Your task to perform on an android device: Open battery settings Image 0: 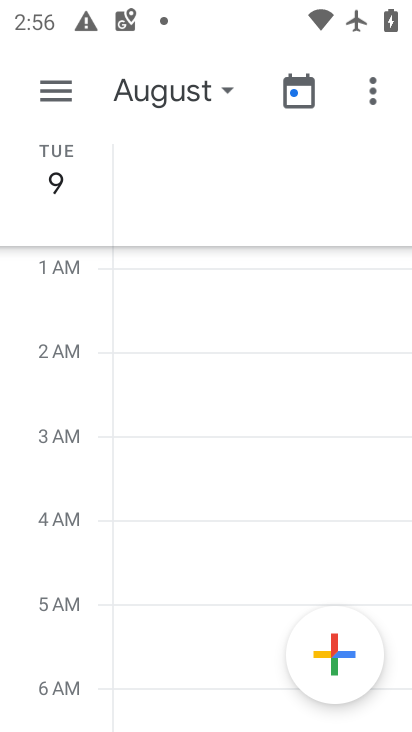
Step 0: press home button
Your task to perform on an android device: Open battery settings Image 1: 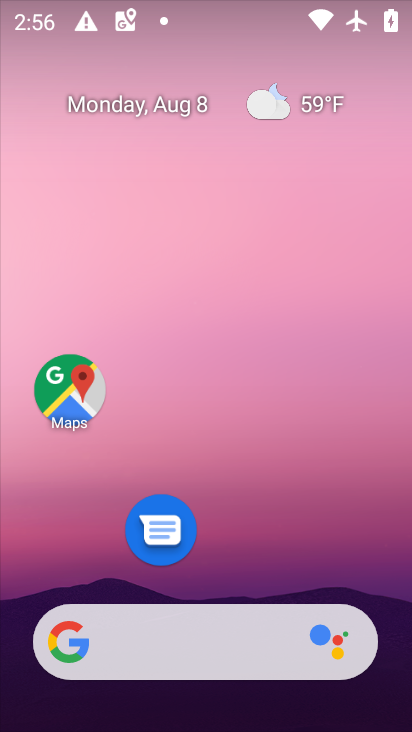
Step 1: drag from (215, 499) to (200, 181)
Your task to perform on an android device: Open battery settings Image 2: 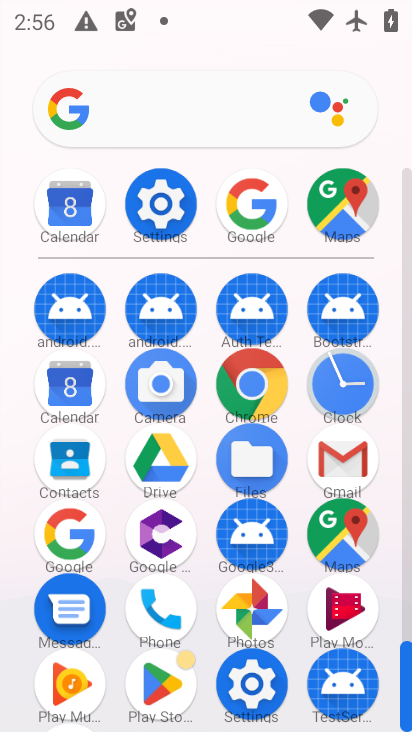
Step 2: click (162, 204)
Your task to perform on an android device: Open battery settings Image 3: 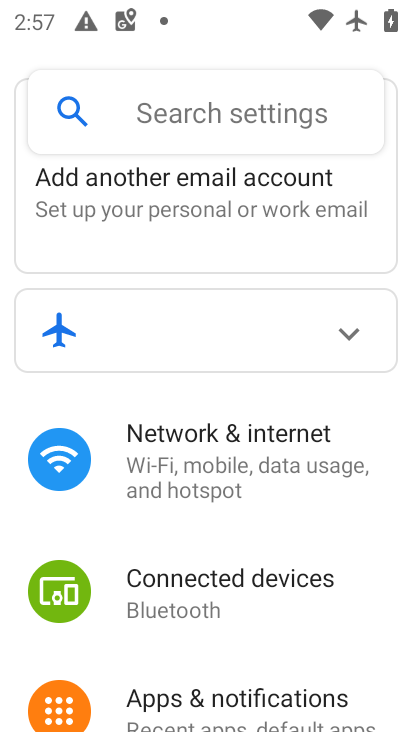
Step 3: drag from (225, 624) to (222, 301)
Your task to perform on an android device: Open battery settings Image 4: 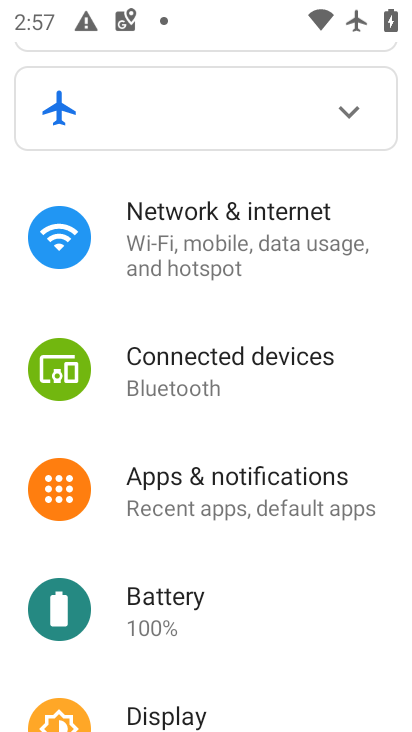
Step 4: click (163, 592)
Your task to perform on an android device: Open battery settings Image 5: 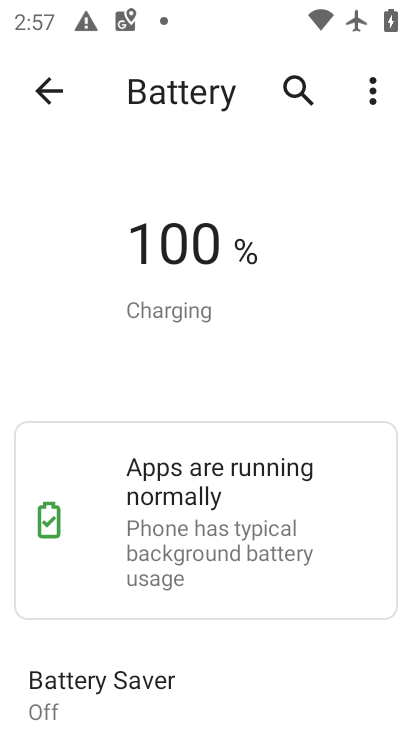
Step 5: task complete